Your task to perform on an android device: allow cookies in the chrome app Image 0: 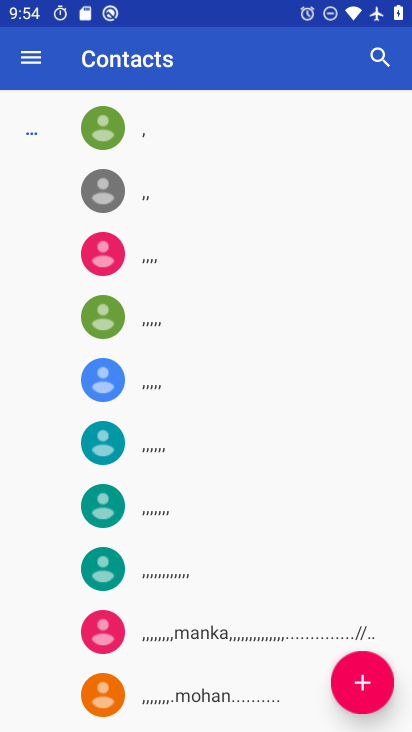
Step 0: press home button
Your task to perform on an android device: allow cookies in the chrome app Image 1: 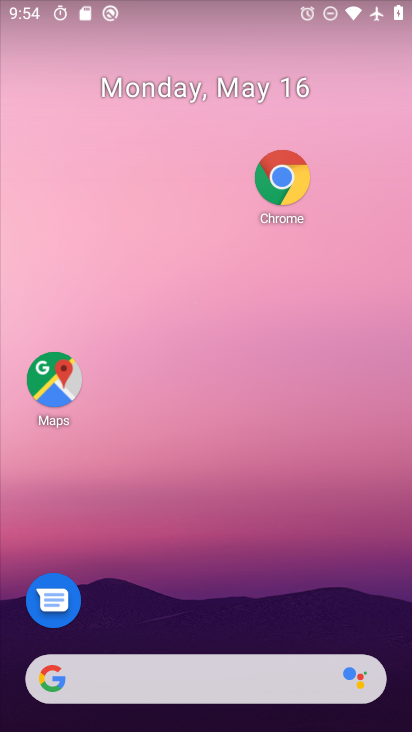
Step 1: click (274, 180)
Your task to perform on an android device: allow cookies in the chrome app Image 2: 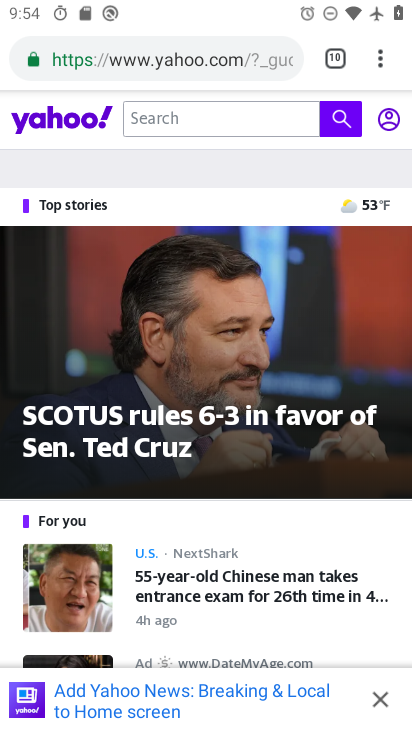
Step 2: drag from (383, 59) to (230, 623)
Your task to perform on an android device: allow cookies in the chrome app Image 3: 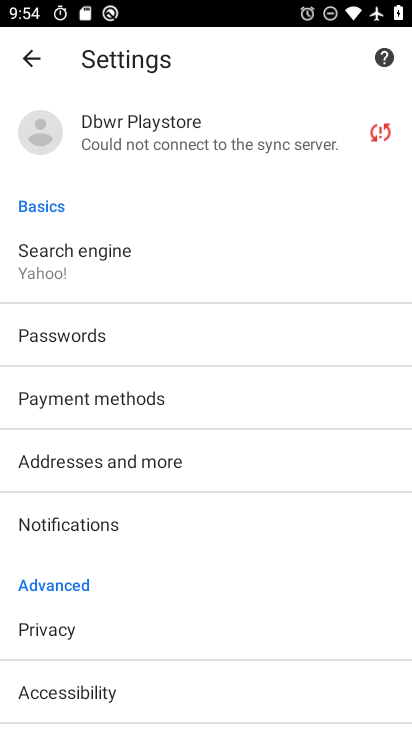
Step 3: drag from (182, 604) to (233, 271)
Your task to perform on an android device: allow cookies in the chrome app Image 4: 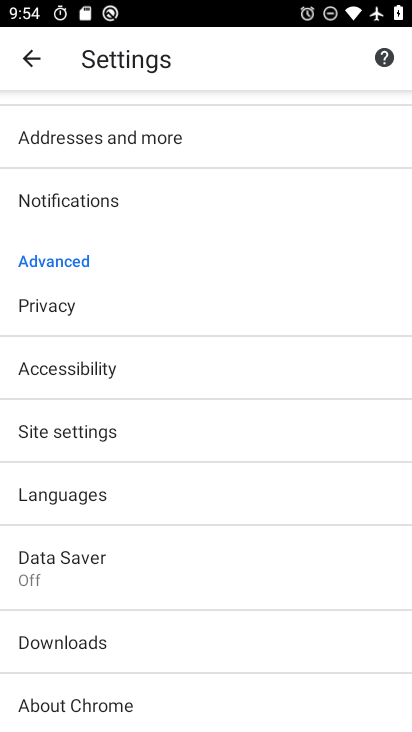
Step 4: click (114, 434)
Your task to perform on an android device: allow cookies in the chrome app Image 5: 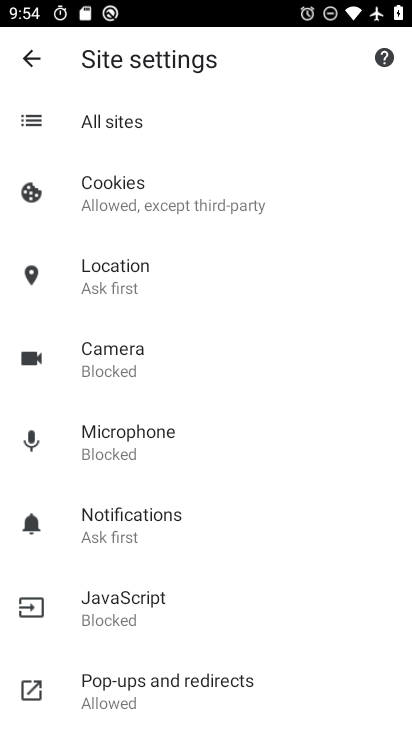
Step 5: click (213, 187)
Your task to perform on an android device: allow cookies in the chrome app Image 6: 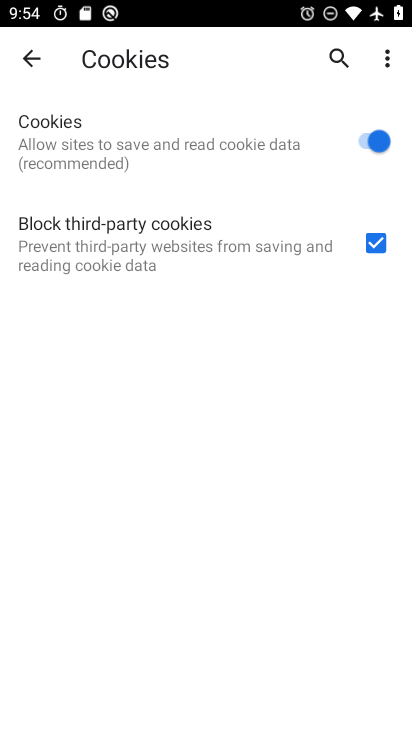
Step 6: task complete